Your task to perform on an android device: Empty the shopping cart on target.com. Add "alienware aurora" to the cart on target.com, then select checkout. Image 0: 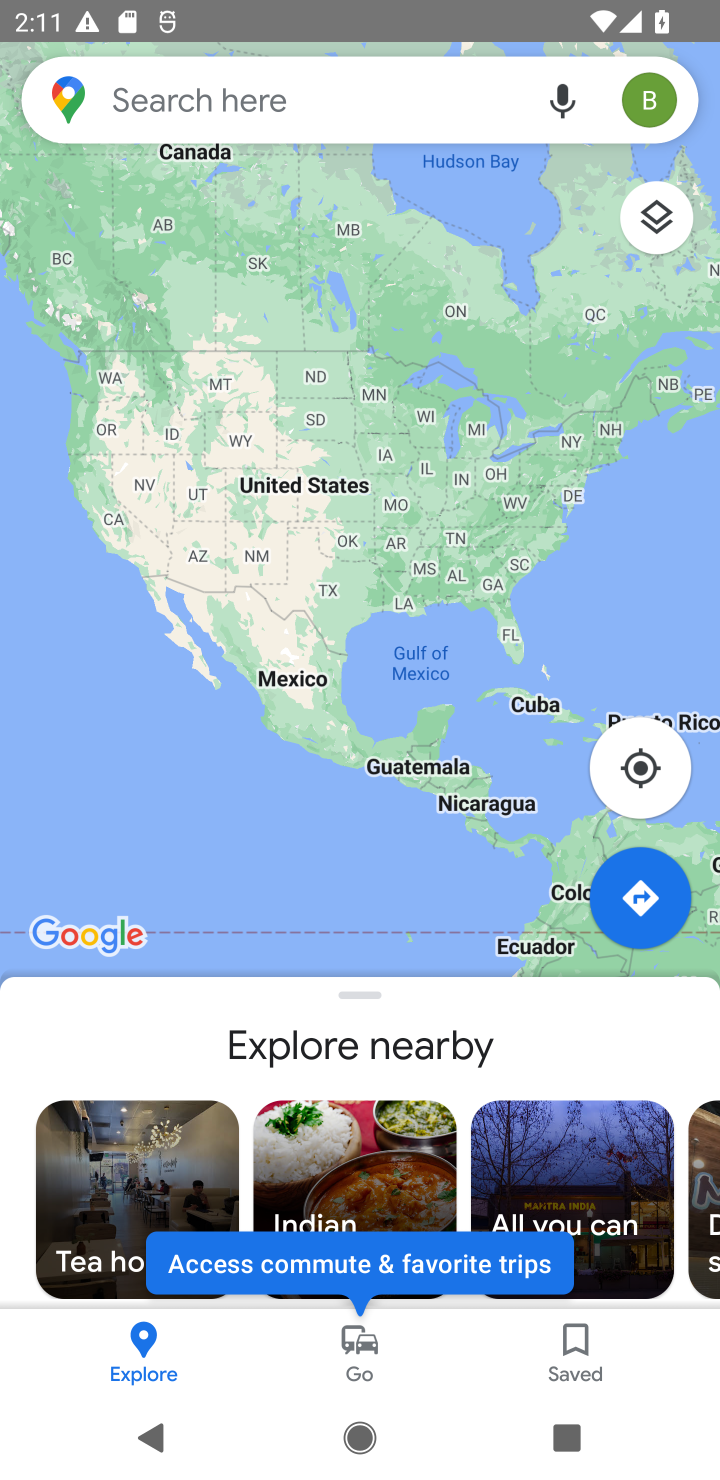
Step 0: press home button
Your task to perform on an android device: Empty the shopping cart on target.com. Add "alienware aurora" to the cart on target.com, then select checkout. Image 1: 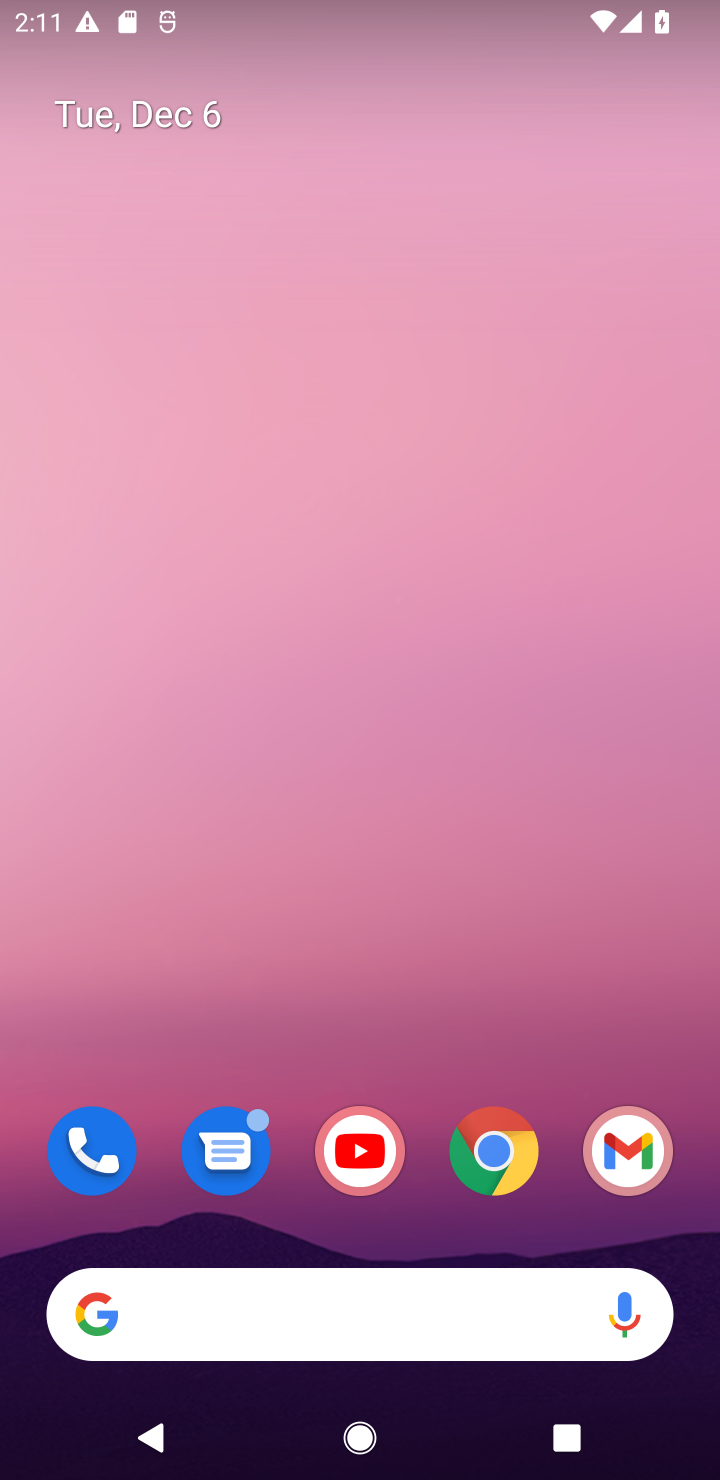
Step 1: click (470, 1175)
Your task to perform on an android device: Empty the shopping cart on target.com. Add "alienware aurora" to the cart on target.com, then select checkout. Image 2: 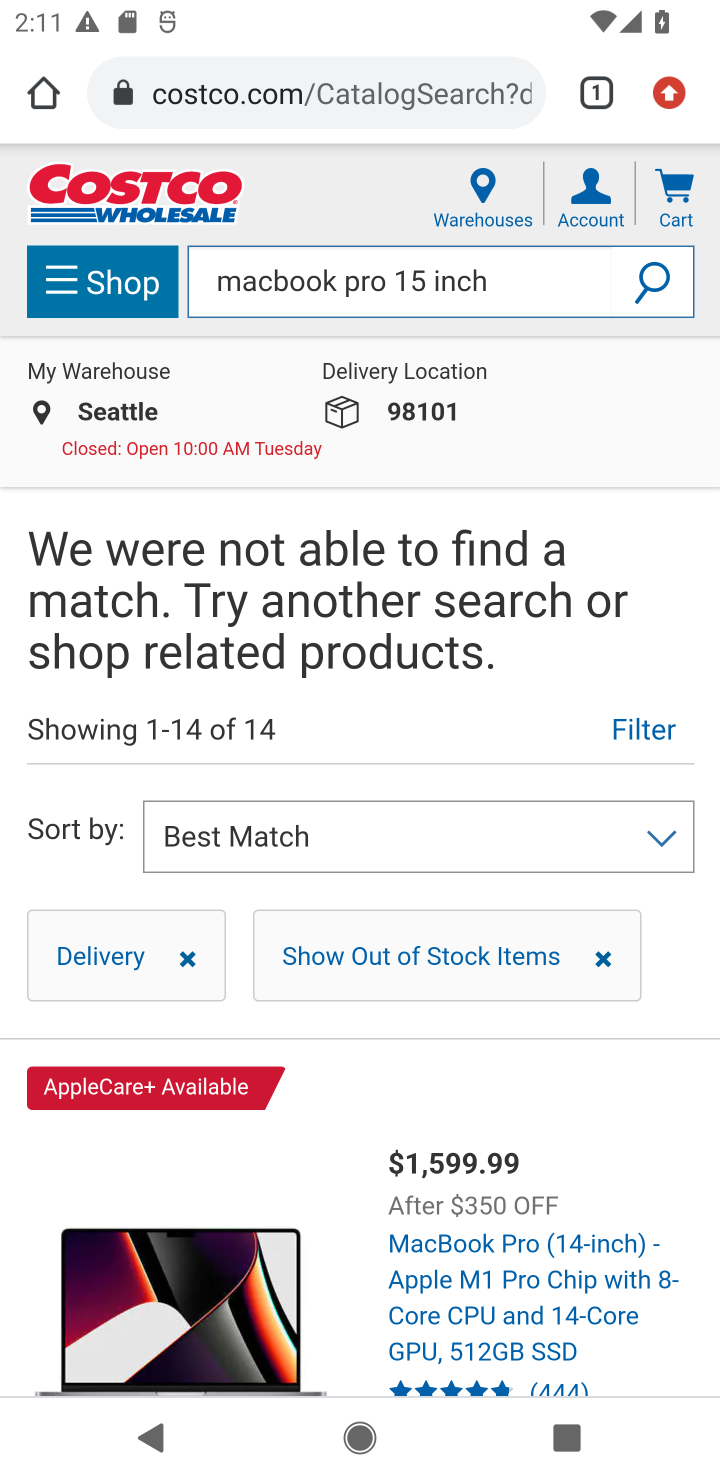
Step 2: click (273, 105)
Your task to perform on an android device: Empty the shopping cart on target.com. Add "alienware aurora" to the cart on target.com, then select checkout. Image 3: 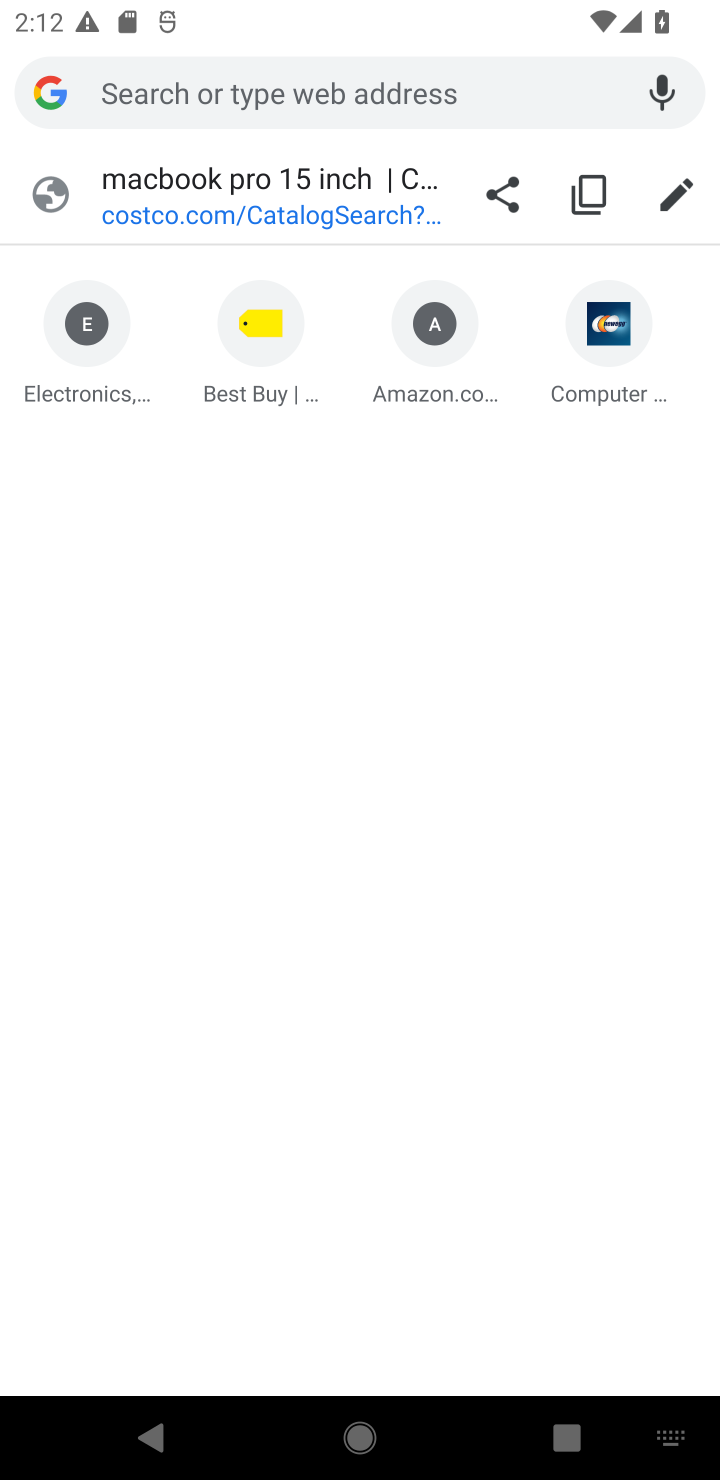
Step 3: type "target.com"
Your task to perform on an android device: Empty the shopping cart on target.com. Add "alienware aurora" to the cart on target.com, then select checkout. Image 4: 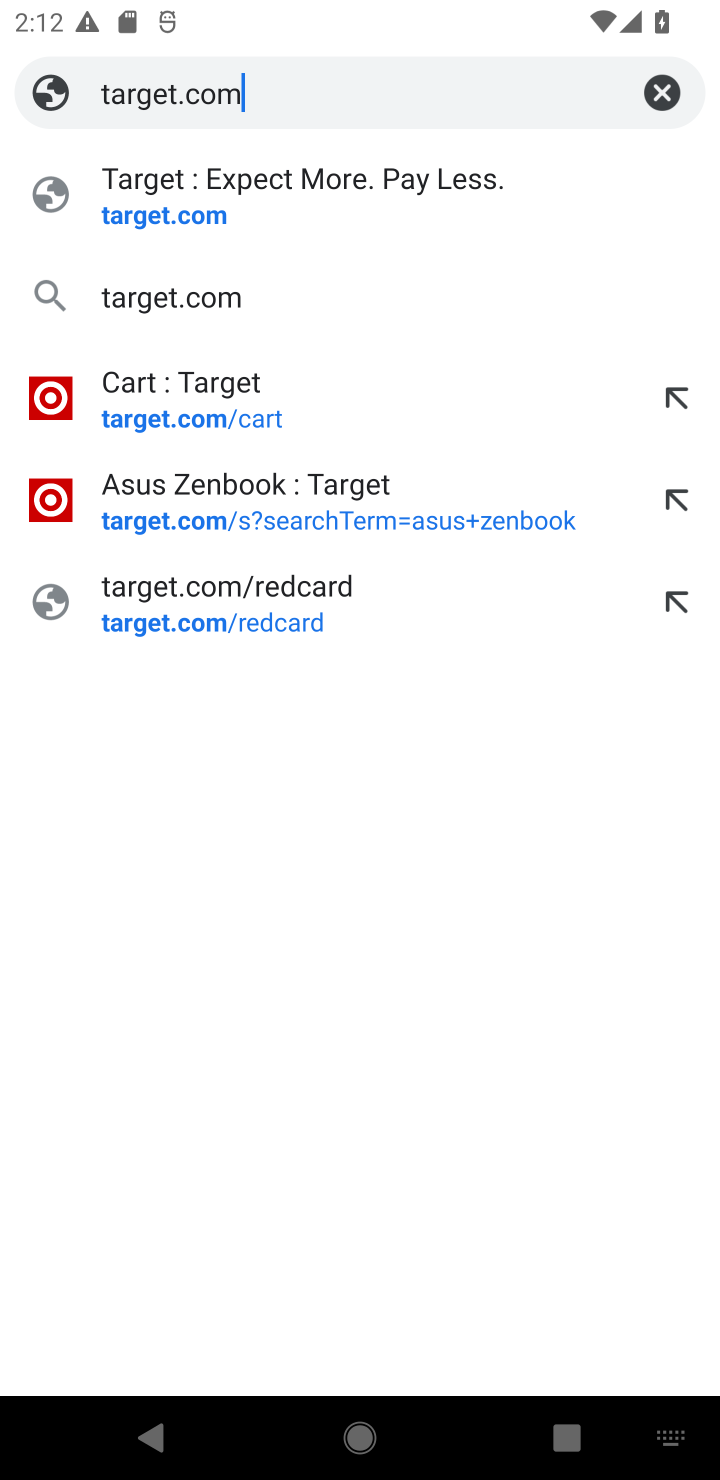
Step 4: click (151, 225)
Your task to perform on an android device: Empty the shopping cart on target.com. Add "alienware aurora" to the cart on target.com, then select checkout. Image 5: 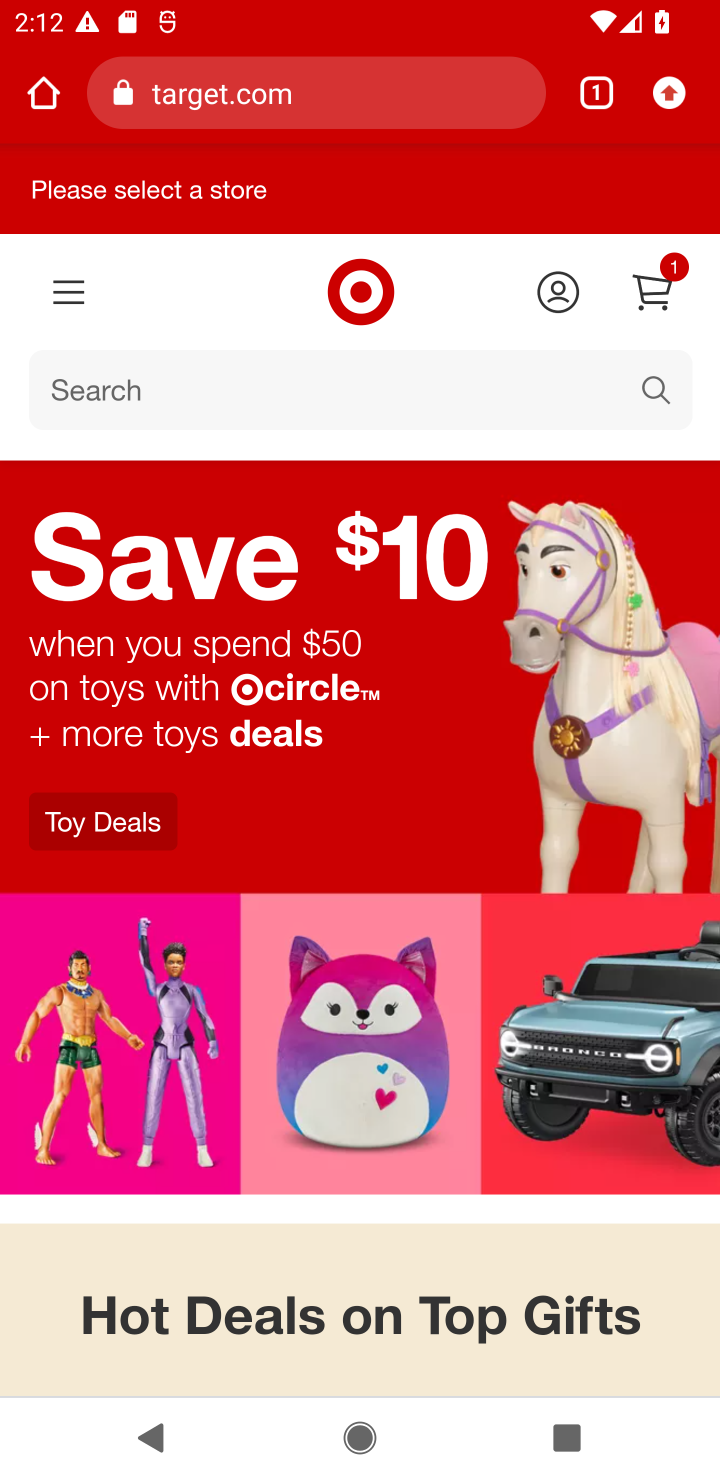
Step 5: click (650, 296)
Your task to perform on an android device: Empty the shopping cart on target.com. Add "alienware aurora" to the cart on target.com, then select checkout. Image 6: 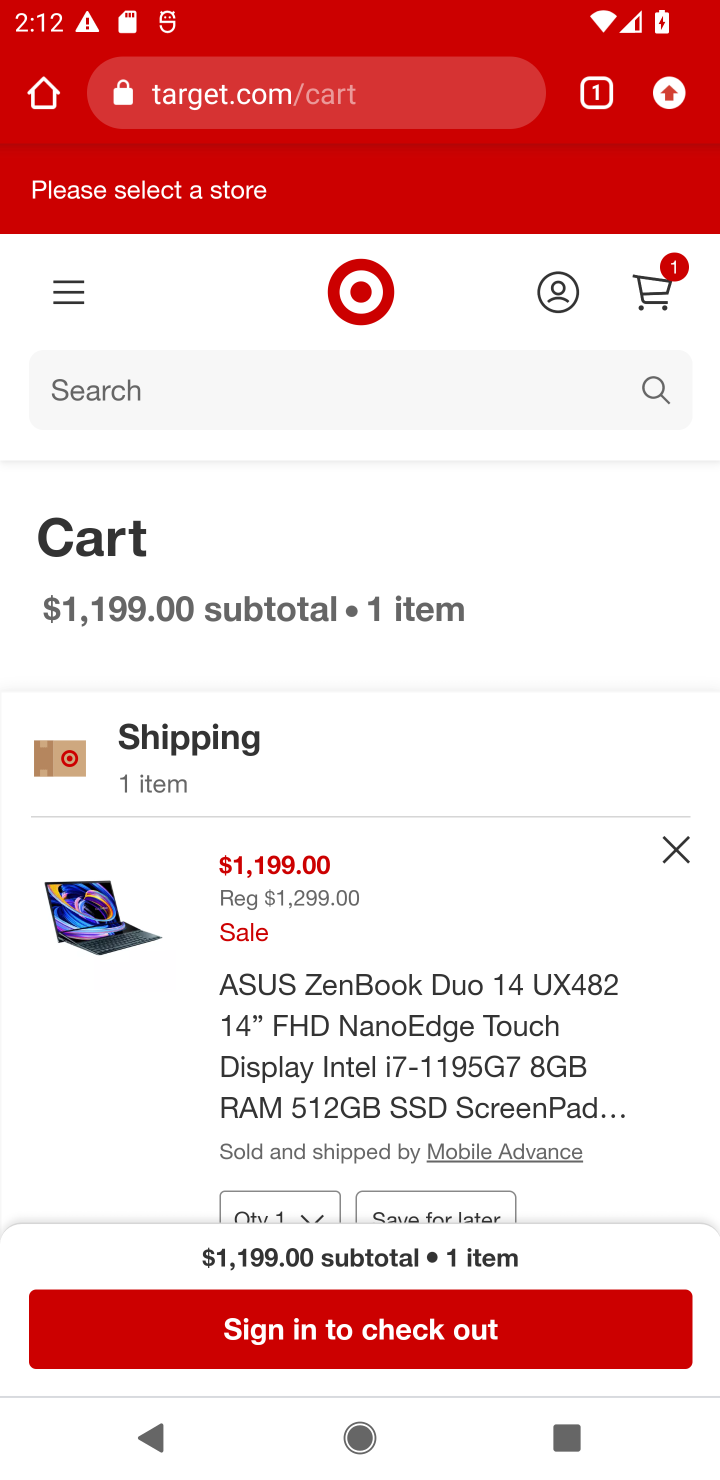
Step 6: click (669, 854)
Your task to perform on an android device: Empty the shopping cart on target.com. Add "alienware aurora" to the cart on target.com, then select checkout. Image 7: 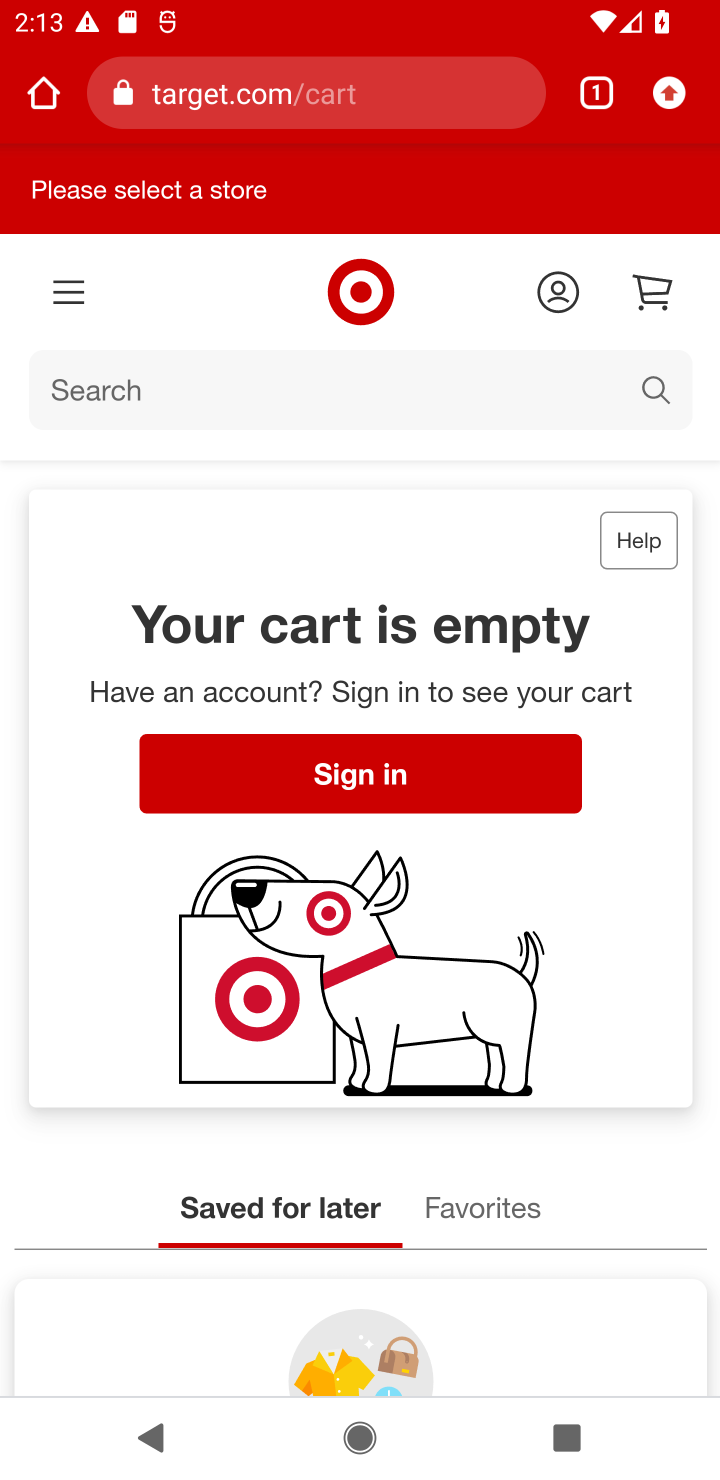
Step 7: click (95, 388)
Your task to perform on an android device: Empty the shopping cart on target.com. Add "alienware aurora" to the cart on target.com, then select checkout. Image 8: 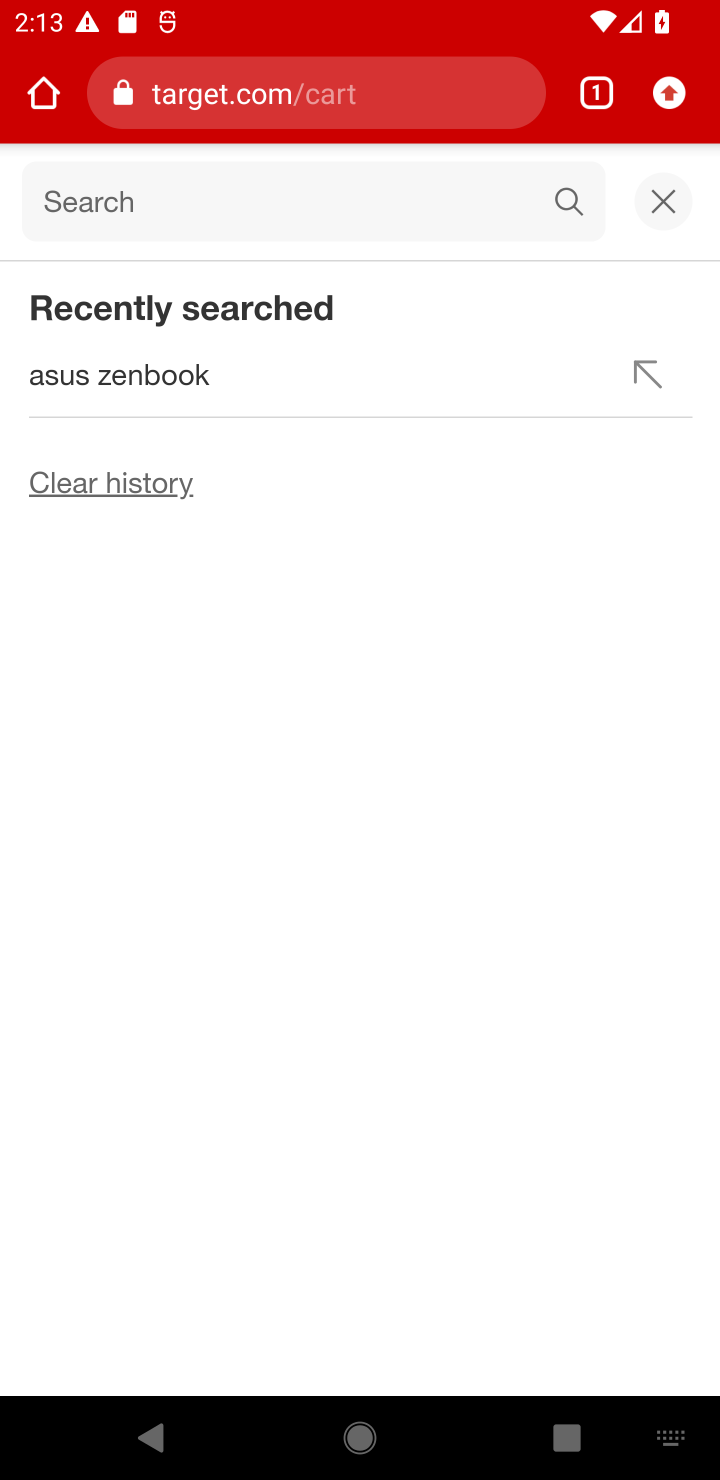
Step 8: type "alienware aurora"
Your task to perform on an android device: Empty the shopping cart on target.com. Add "alienware aurora" to the cart on target.com, then select checkout. Image 9: 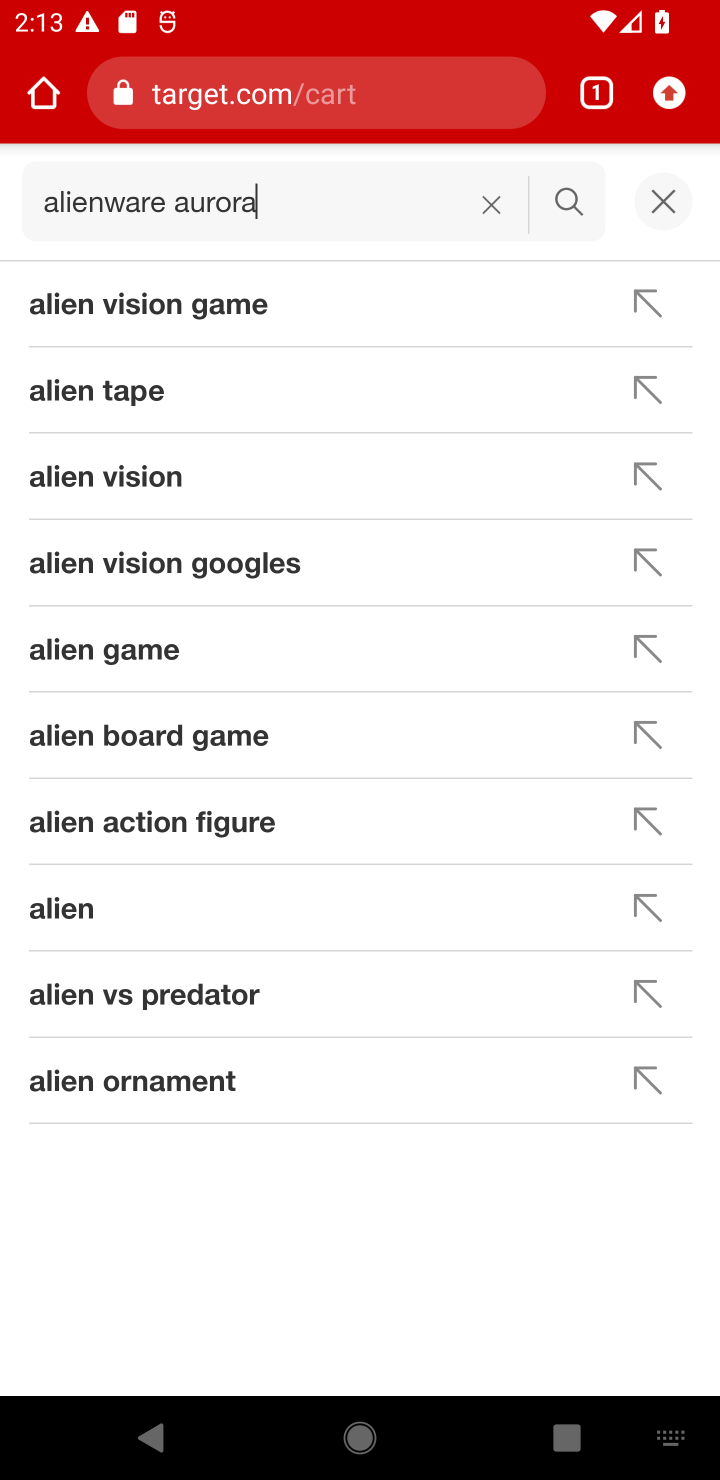
Step 9: click (583, 205)
Your task to perform on an android device: Empty the shopping cart on target.com. Add "alienware aurora" to the cart on target.com, then select checkout. Image 10: 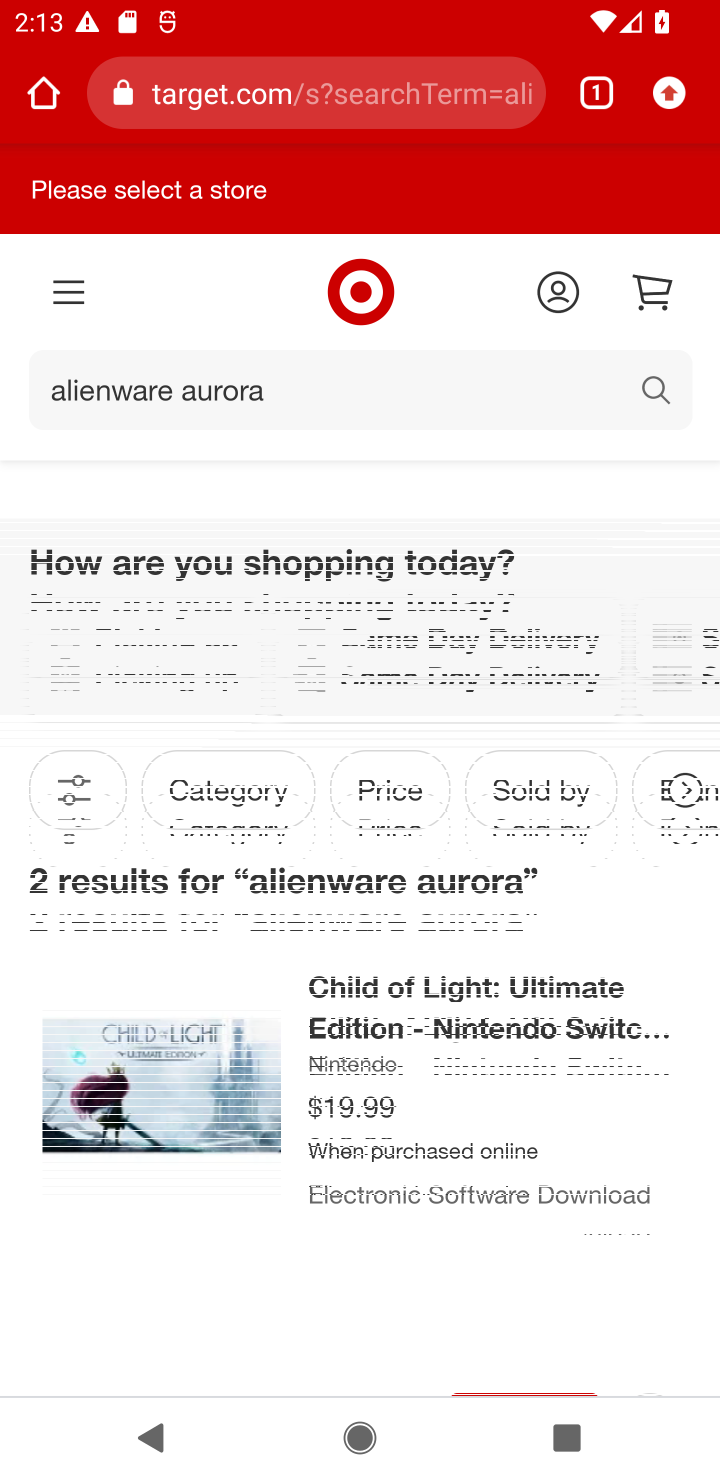
Step 10: task complete